Your task to perform on an android device: Open Wikipedia Image 0: 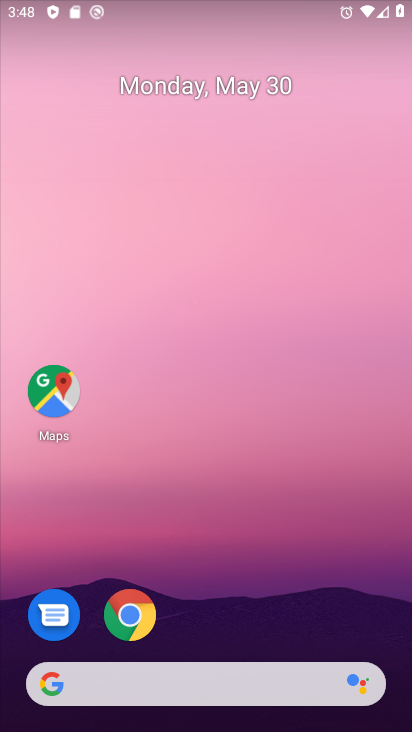
Step 0: click (142, 617)
Your task to perform on an android device: Open Wikipedia Image 1: 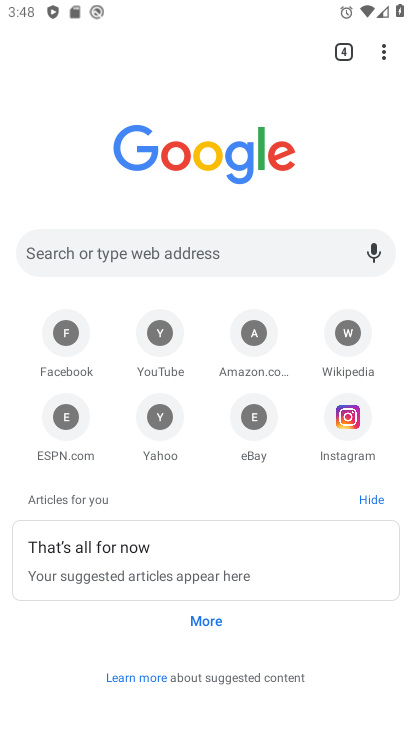
Step 1: click (350, 352)
Your task to perform on an android device: Open Wikipedia Image 2: 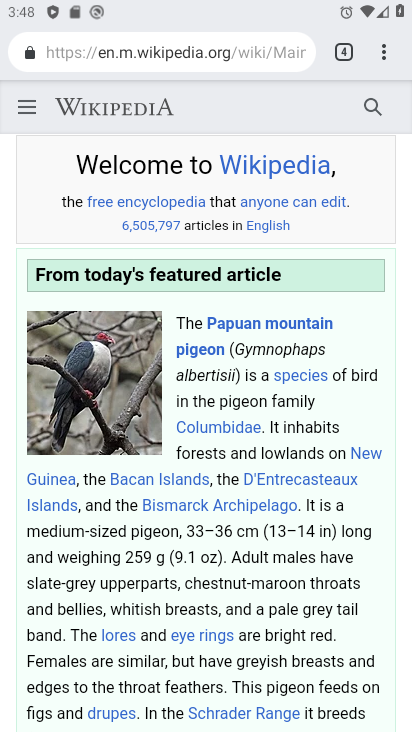
Step 2: task complete